Your task to perform on an android device: open the mobile data screen to see how much data has been used Image 0: 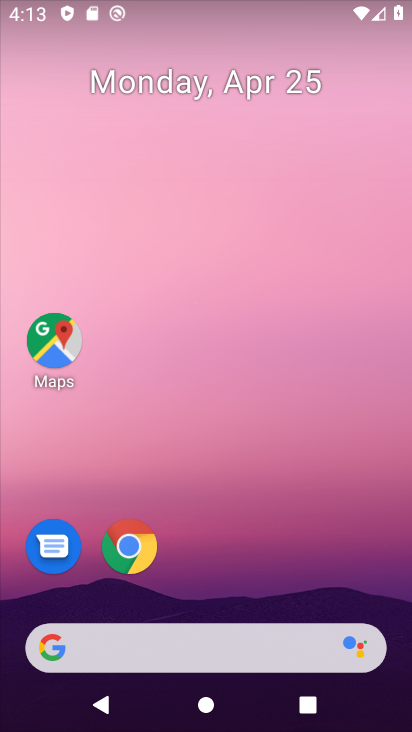
Step 0: drag from (248, 593) to (249, 139)
Your task to perform on an android device: open the mobile data screen to see how much data has been used Image 1: 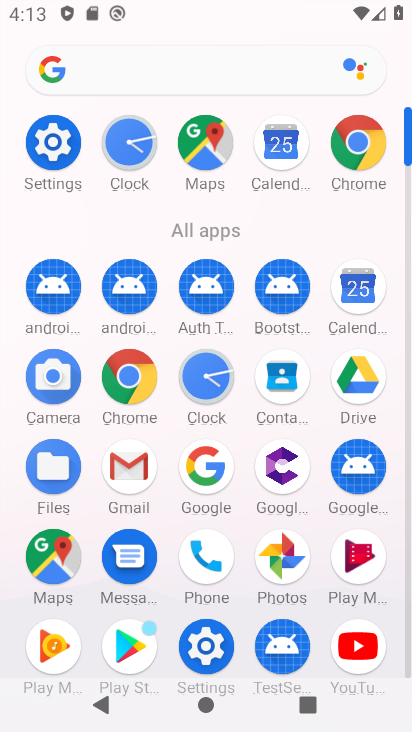
Step 1: click (64, 148)
Your task to perform on an android device: open the mobile data screen to see how much data has been used Image 2: 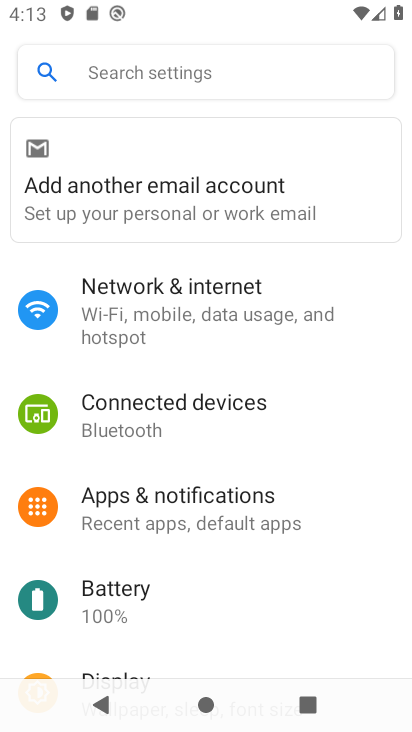
Step 2: click (207, 315)
Your task to perform on an android device: open the mobile data screen to see how much data has been used Image 3: 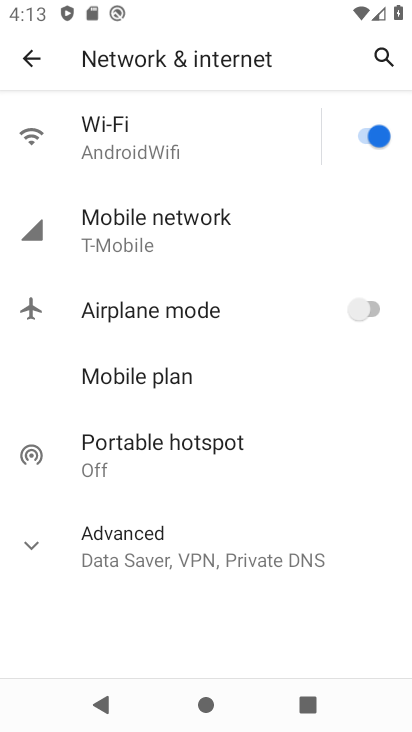
Step 3: click (251, 241)
Your task to perform on an android device: open the mobile data screen to see how much data has been used Image 4: 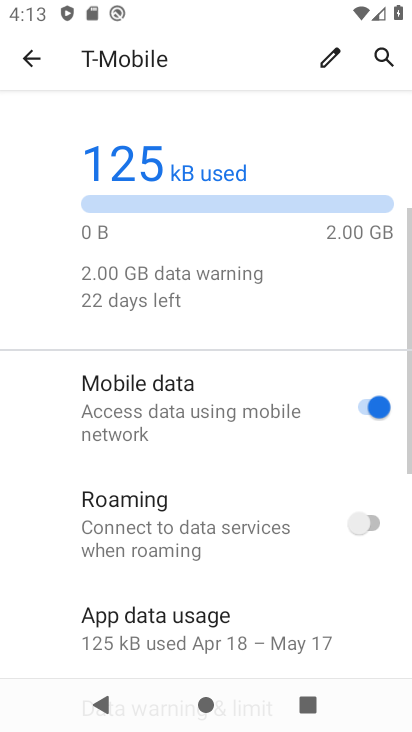
Step 4: task complete